Your task to perform on an android device: check data usage Image 0: 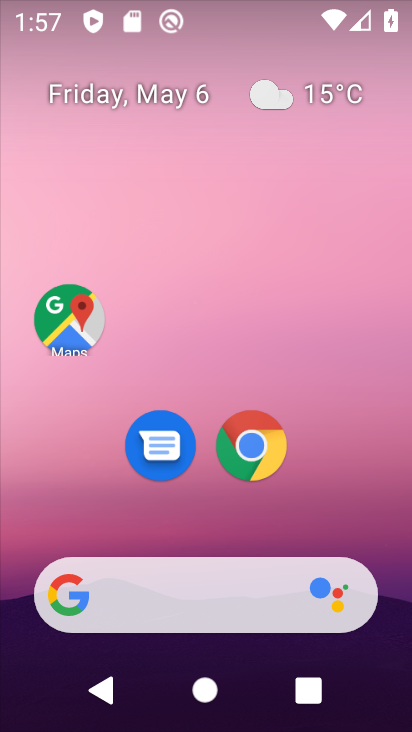
Step 0: drag from (377, 627) to (259, 88)
Your task to perform on an android device: check data usage Image 1: 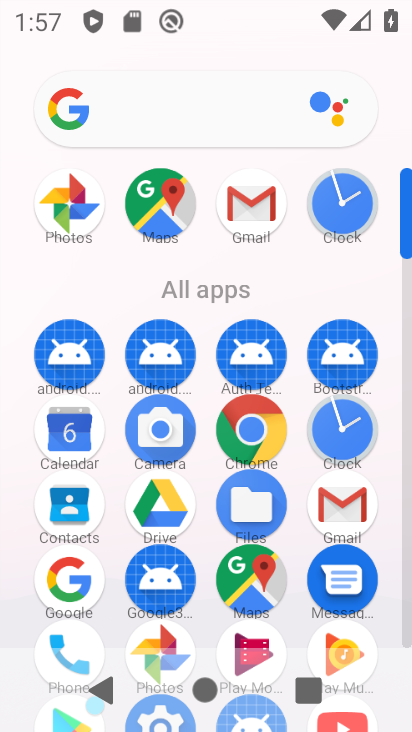
Step 1: drag from (336, 494) to (297, 46)
Your task to perform on an android device: check data usage Image 2: 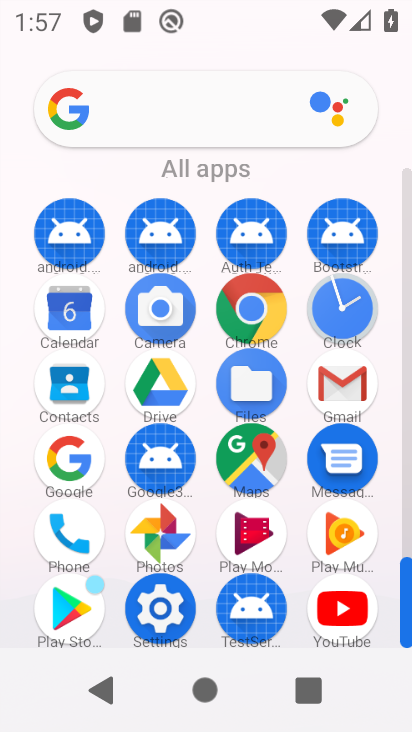
Step 2: click (154, 617)
Your task to perform on an android device: check data usage Image 3: 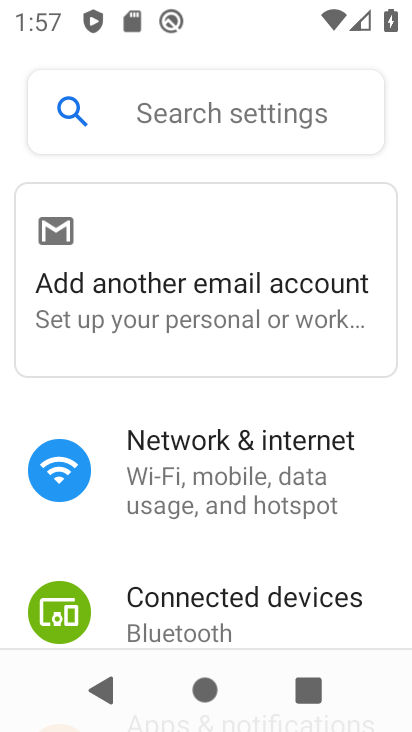
Step 3: click (233, 464)
Your task to perform on an android device: check data usage Image 4: 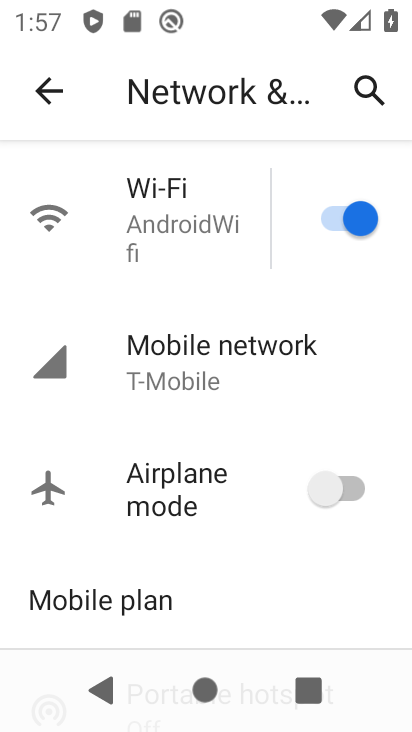
Step 4: drag from (255, 574) to (242, 174)
Your task to perform on an android device: check data usage Image 5: 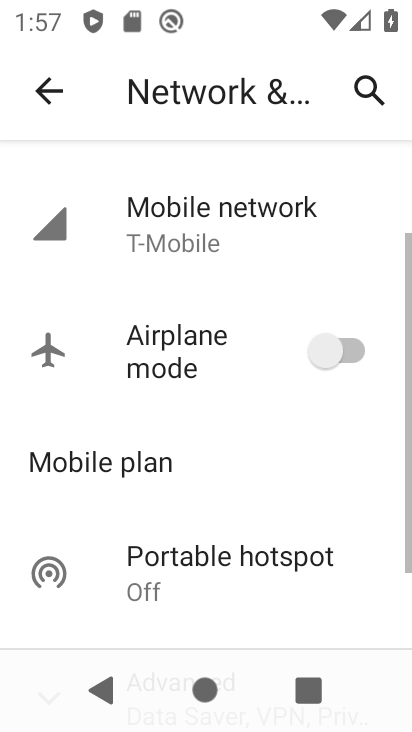
Step 5: drag from (223, 458) to (187, 112)
Your task to perform on an android device: check data usage Image 6: 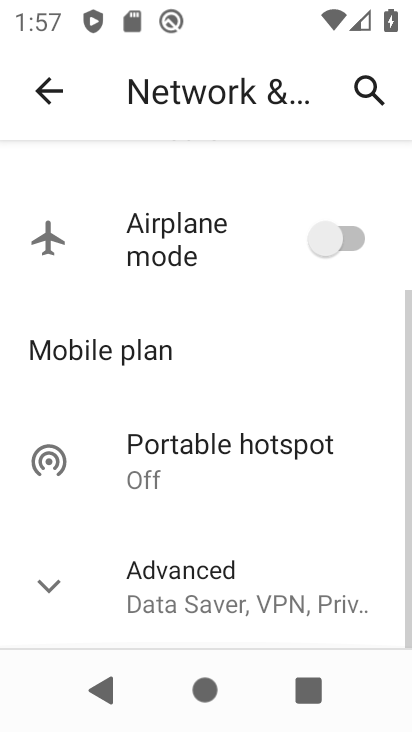
Step 6: drag from (219, 574) to (201, 62)
Your task to perform on an android device: check data usage Image 7: 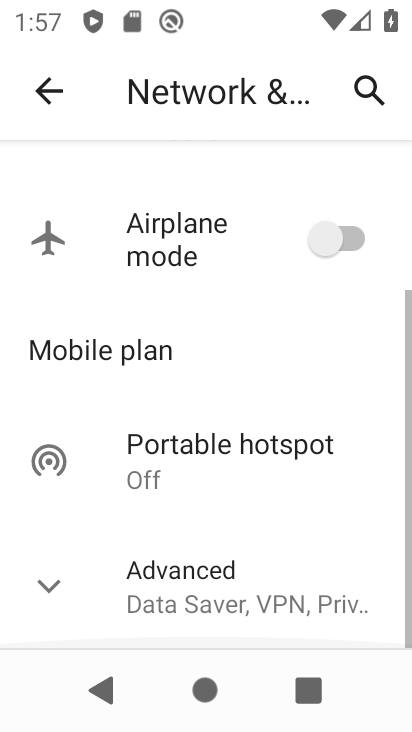
Step 7: drag from (242, 381) to (213, 49)
Your task to perform on an android device: check data usage Image 8: 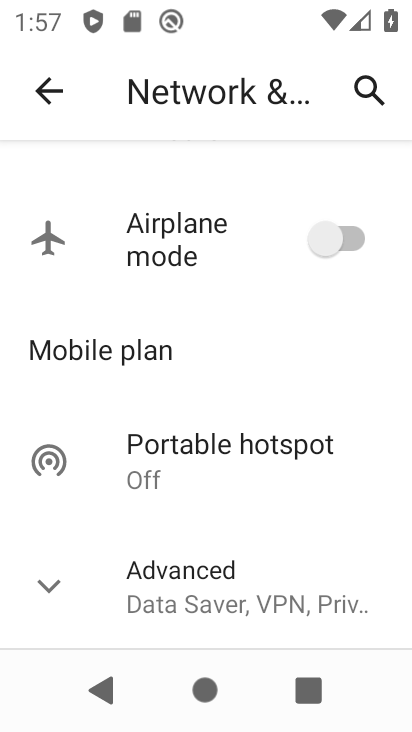
Step 8: click (50, 92)
Your task to perform on an android device: check data usage Image 9: 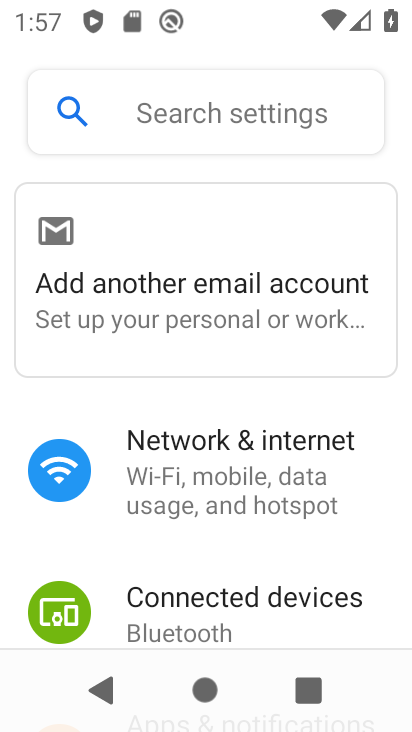
Step 9: task complete